Your task to perform on an android device: Open wifi settings Image 0: 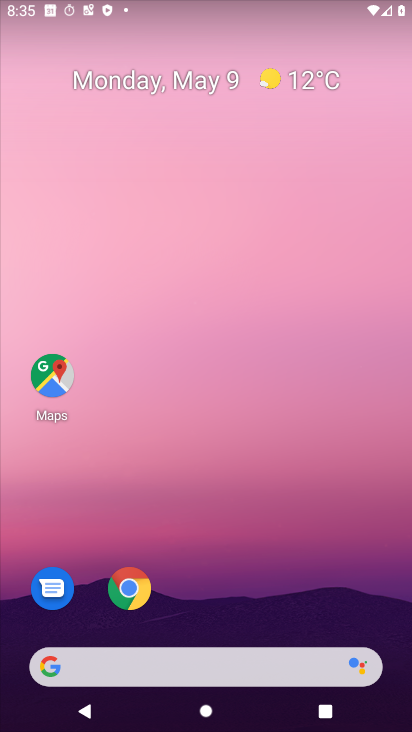
Step 0: drag from (163, 661) to (160, 148)
Your task to perform on an android device: Open wifi settings Image 1: 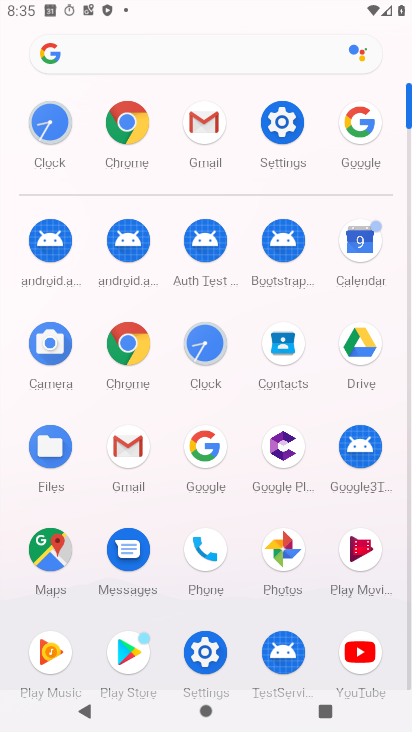
Step 1: click (279, 132)
Your task to perform on an android device: Open wifi settings Image 2: 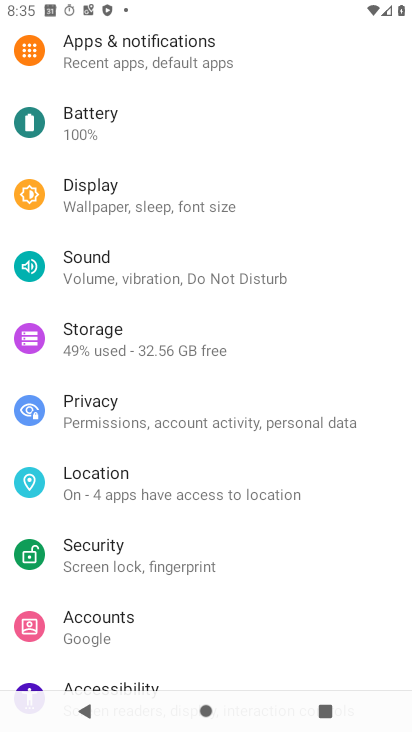
Step 2: drag from (259, 115) to (237, 649)
Your task to perform on an android device: Open wifi settings Image 3: 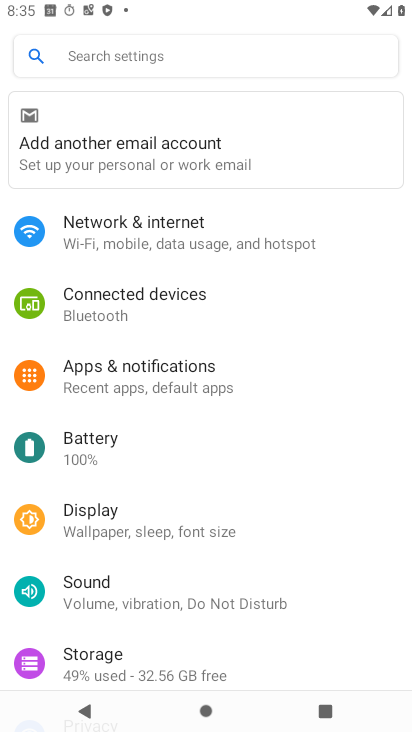
Step 3: click (156, 229)
Your task to perform on an android device: Open wifi settings Image 4: 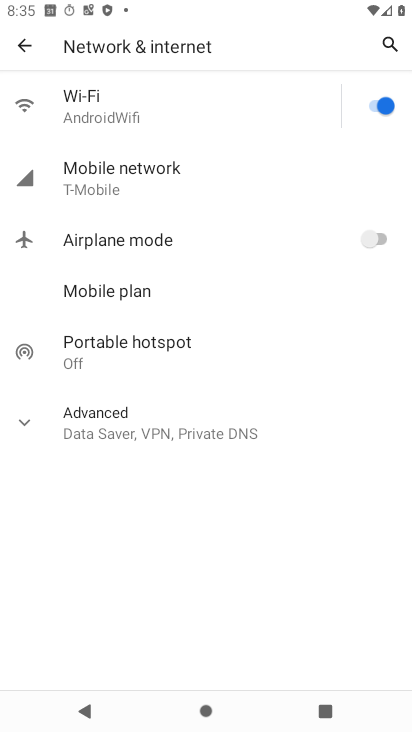
Step 4: click (93, 113)
Your task to perform on an android device: Open wifi settings Image 5: 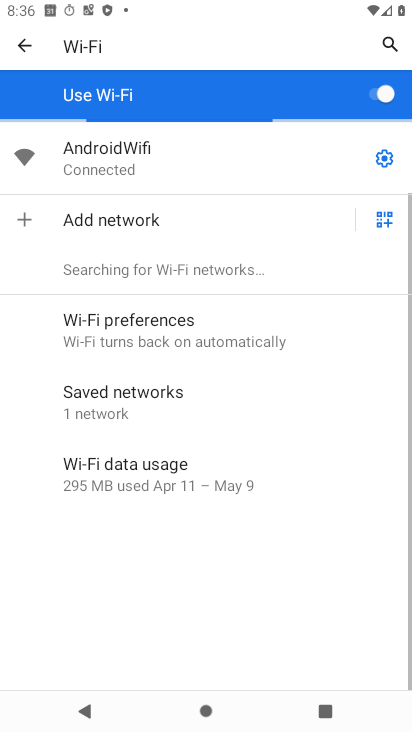
Step 5: task complete